Your task to perform on an android device: Open Yahoo.com Image 0: 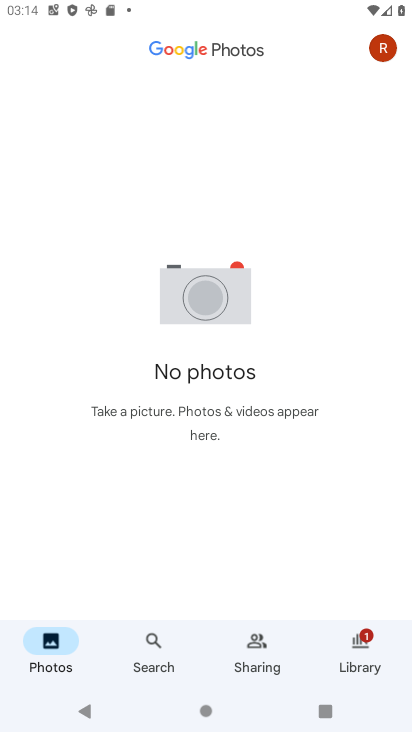
Step 0: press home button
Your task to perform on an android device: Open Yahoo.com Image 1: 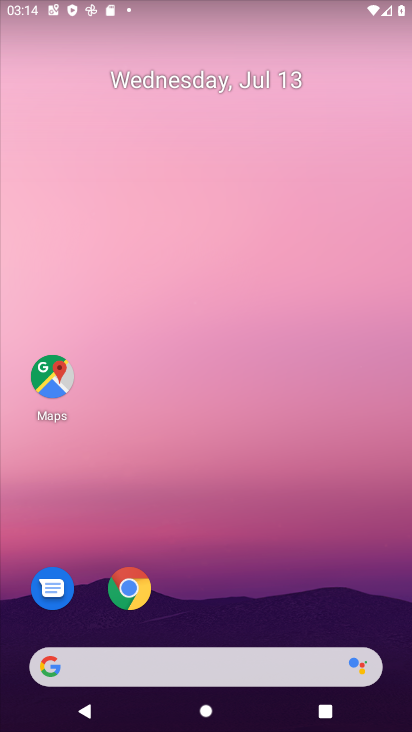
Step 1: click (123, 585)
Your task to perform on an android device: Open Yahoo.com Image 2: 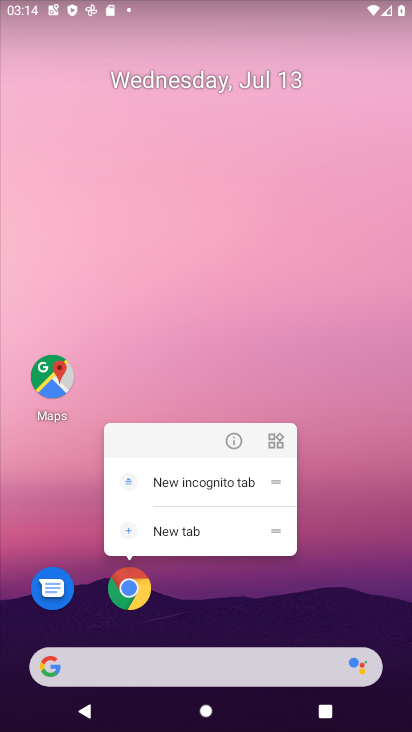
Step 2: click (144, 583)
Your task to perform on an android device: Open Yahoo.com Image 3: 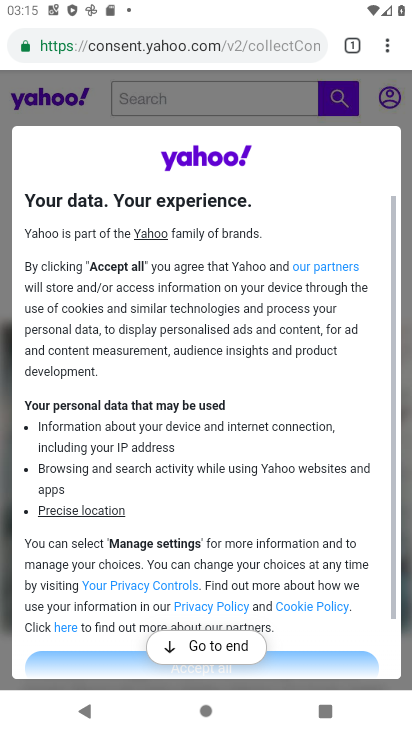
Step 3: click (131, 583)
Your task to perform on an android device: Open Yahoo.com Image 4: 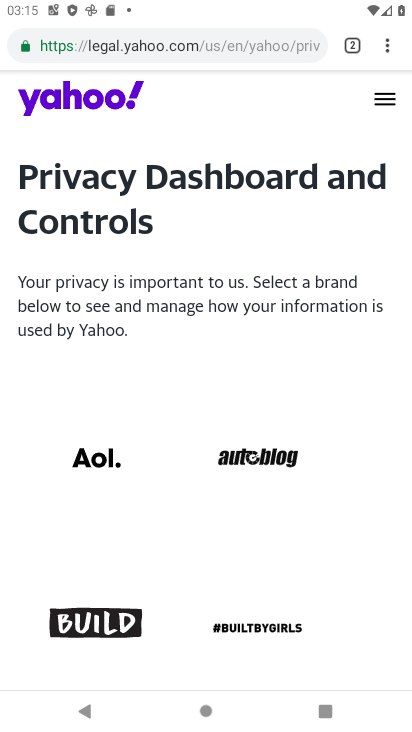
Step 4: task complete